Your task to perform on an android device: turn off priority inbox in the gmail app Image 0: 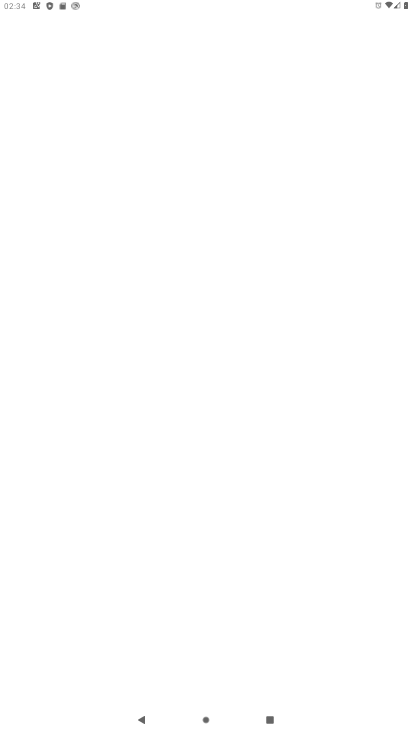
Step 0: press home button
Your task to perform on an android device: turn off priority inbox in the gmail app Image 1: 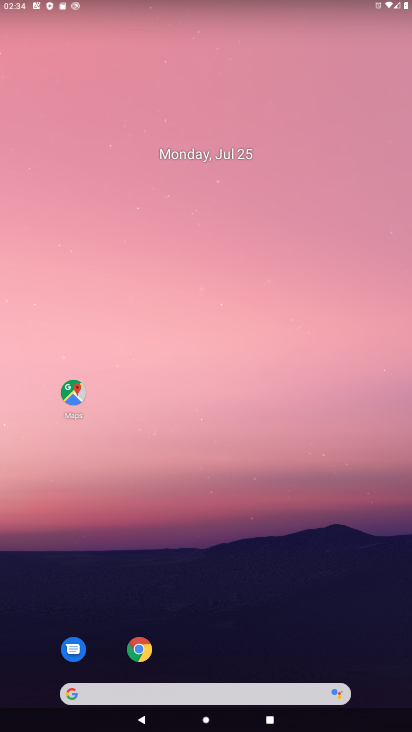
Step 1: drag from (392, 665) to (362, 141)
Your task to perform on an android device: turn off priority inbox in the gmail app Image 2: 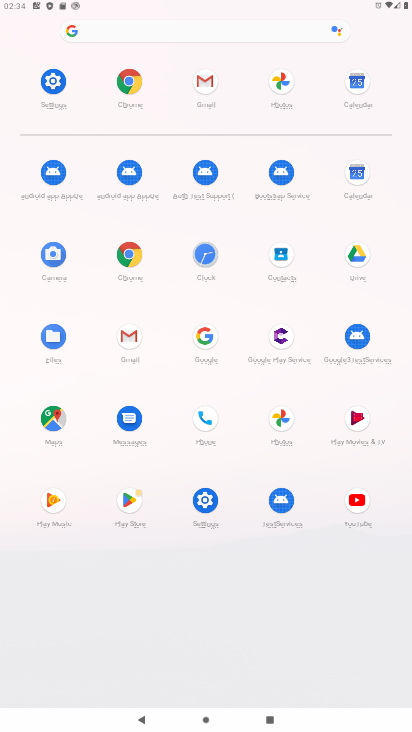
Step 2: click (128, 337)
Your task to perform on an android device: turn off priority inbox in the gmail app Image 3: 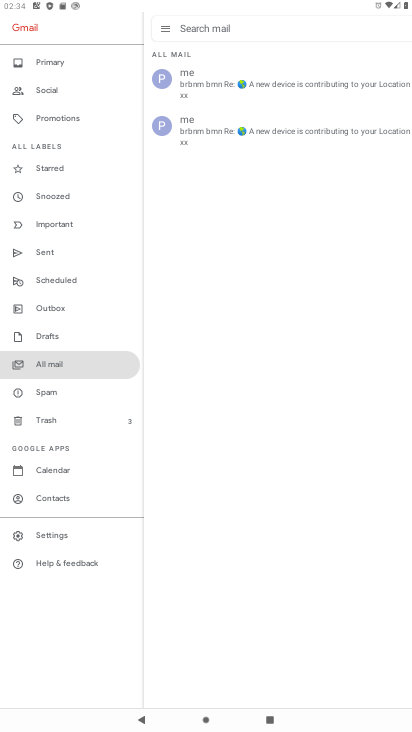
Step 3: click (53, 532)
Your task to perform on an android device: turn off priority inbox in the gmail app Image 4: 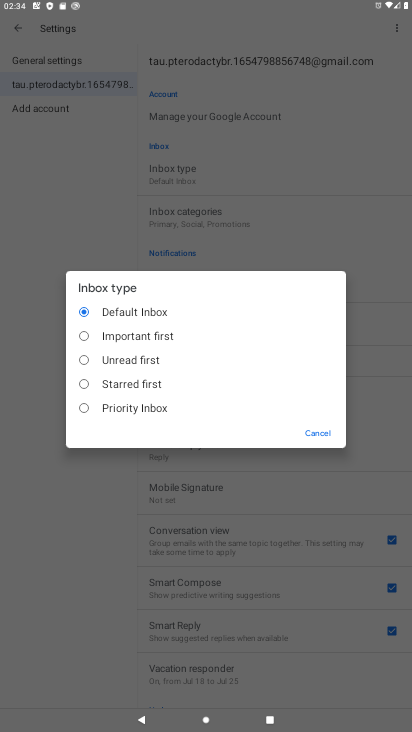
Step 4: task complete